Your task to perform on an android device: When is my next meeting? Image 0: 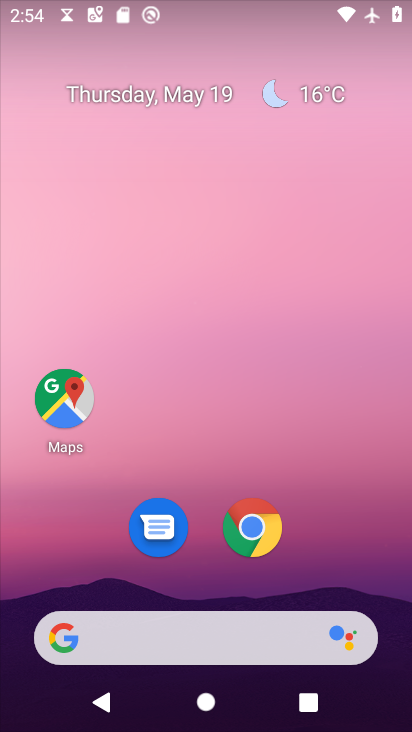
Step 0: click (170, 93)
Your task to perform on an android device: When is my next meeting? Image 1: 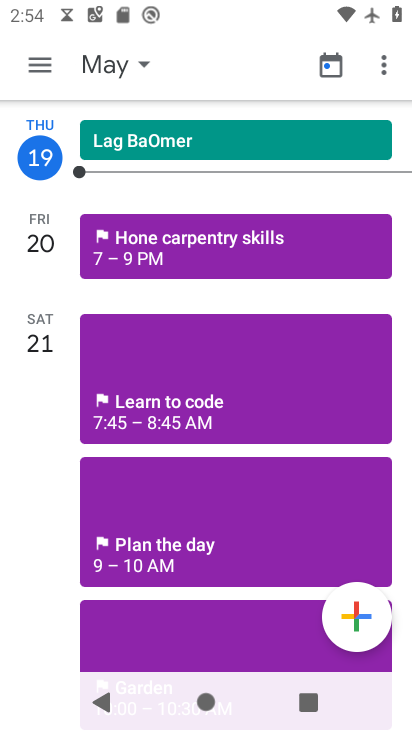
Step 1: task complete